Your task to perform on an android device: add a contact in the contacts app Image 0: 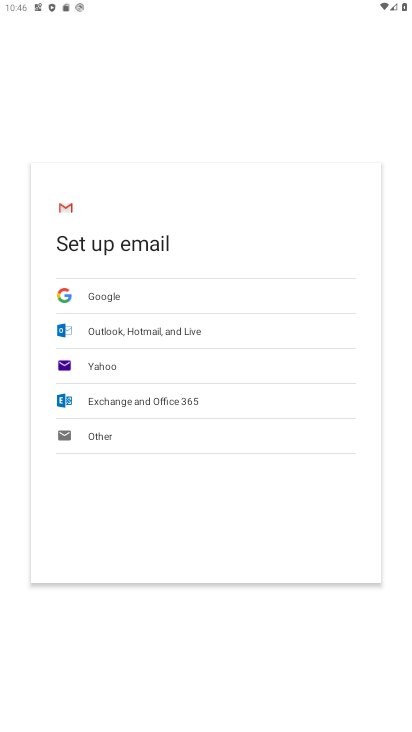
Step 0: press home button
Your task to perform on an android device: add a contact in the contacts app Image 1: 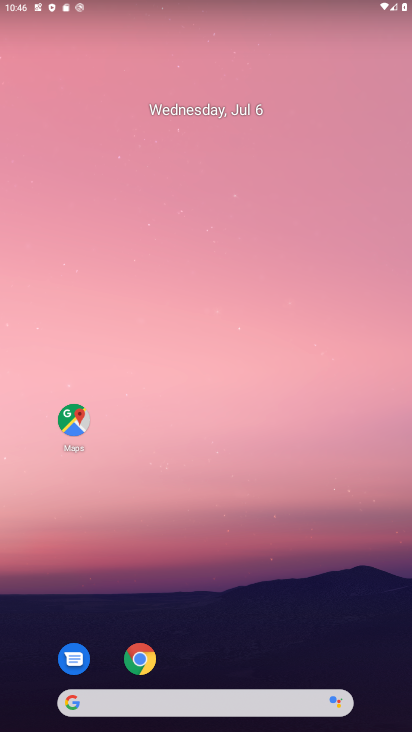
Step 1: drag from (201, 614) to (153, 177)
Your task to perform on an android device: add a contact in the contacts app Image 2: 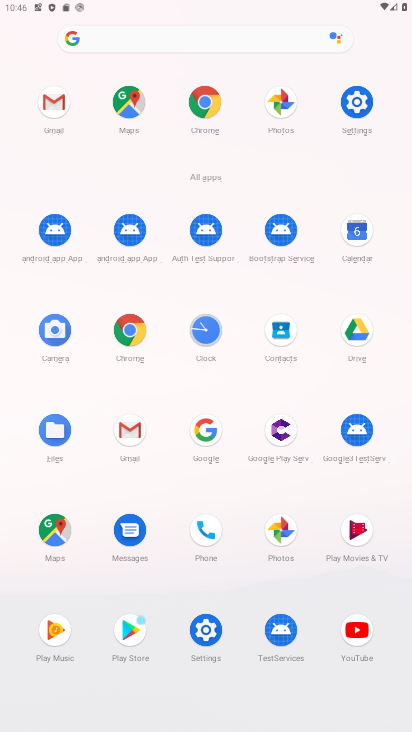
Step 2: click (281, 335)
Your task to perform on an android device: add a contact in the contacts app Image 3: 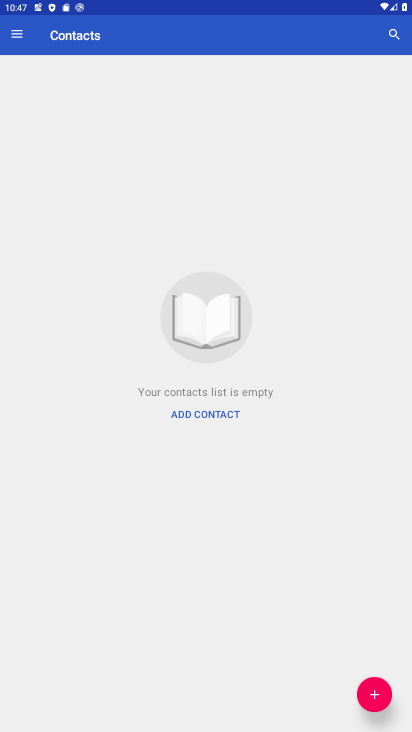
Step 3: click (375, 693)
Your task to perform on an android device: add a contact in the contacts app Image 4: 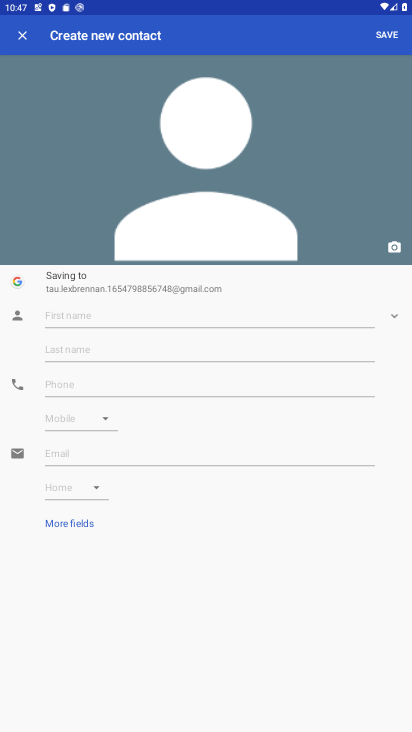
Step 4: type "aa"
Your task to perform on an android device: add a contact in the contacts app Image 5: 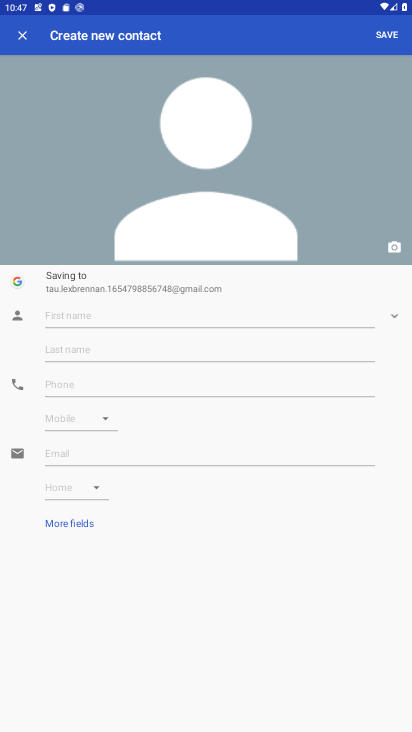
Step 5: click (74, 384)
Your task to perform on an android device: add a contact in the contacts app Image 6: 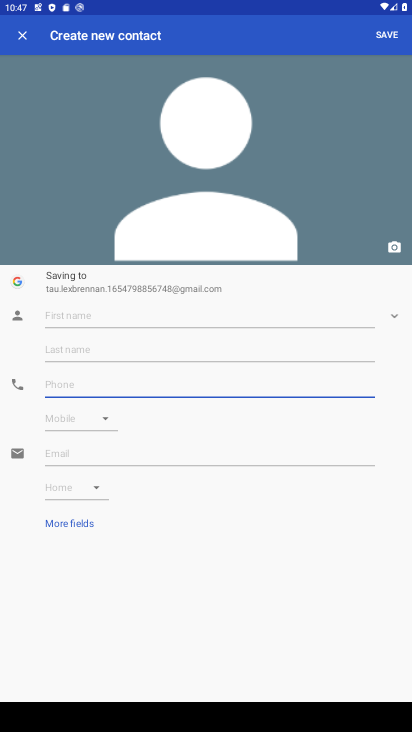
Step 6: type "7656"
Your task to perform on an android device: add a contact in the contacts app Image 7: 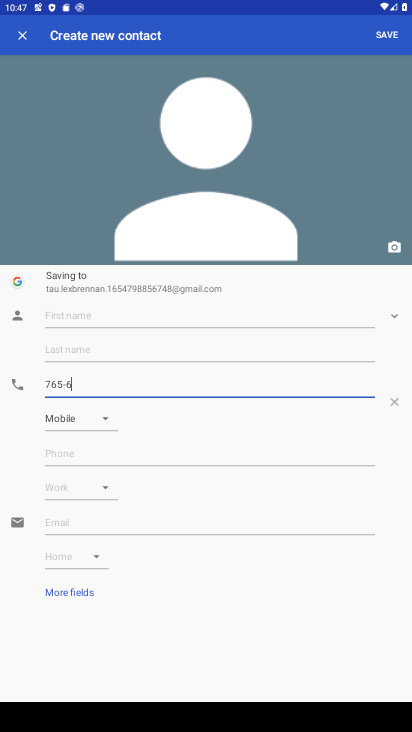
Step 7: click (99, 307)
Your task to perform on an android device: add a contact in the contacts app Image 8: 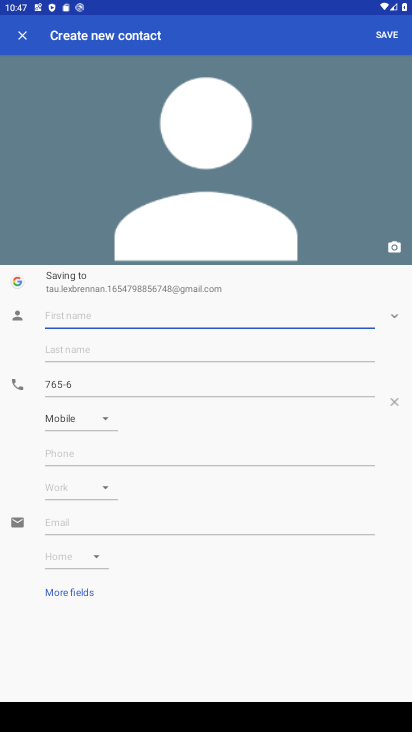
Step 8: type "aaa"
Your task to perform on an android device: add a contact in the contacts app Image 9: 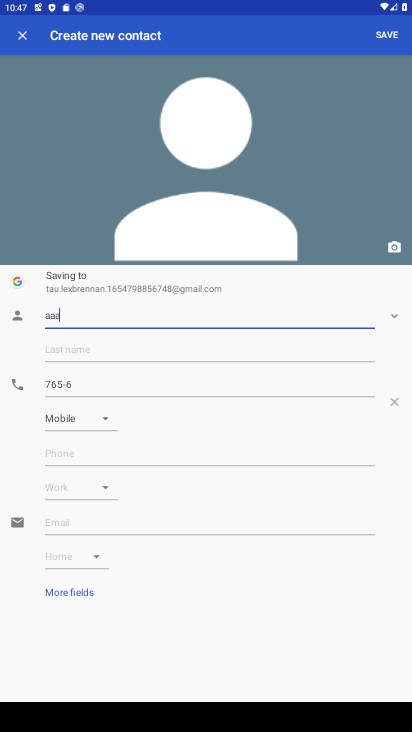
Step 9: click (386, 29)
Your task to perform on an android device: add a contact in the contacts app Image 10: 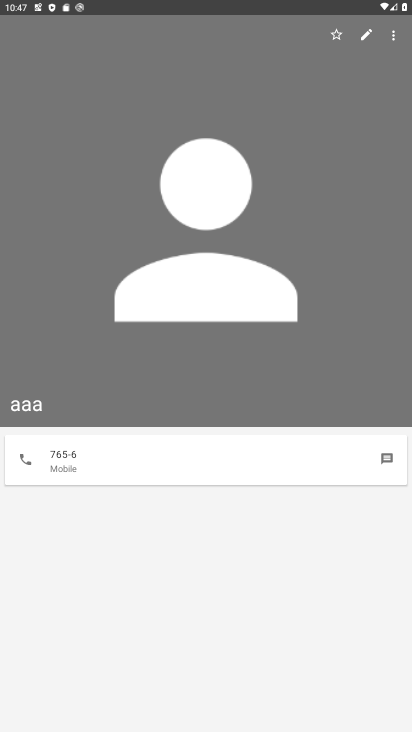
Step 10: task complete